Your task to perform on an android device: Open ESPN.com Image 0: 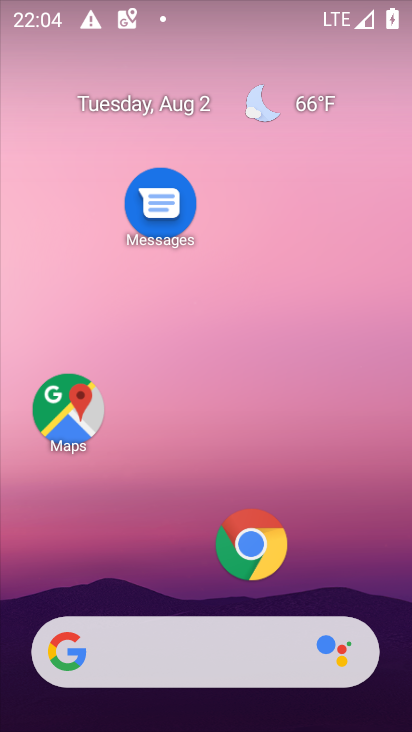
Step 0: click (273, 533)
Your task to perform on an android device: Open ESPN.com Image 1: 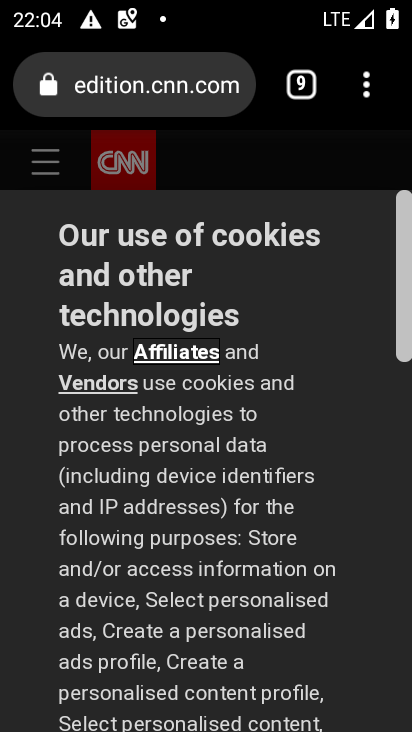
Step 1: click (293, 103)
Your task to perform on an android device: Open ESPN.com Image 2: 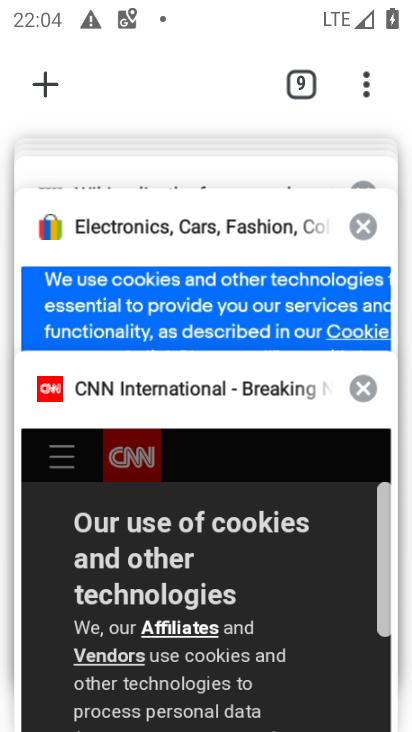
Step 2: click (51, 82)
Your task to perform on an android device: Open ESPN.com Image 3: 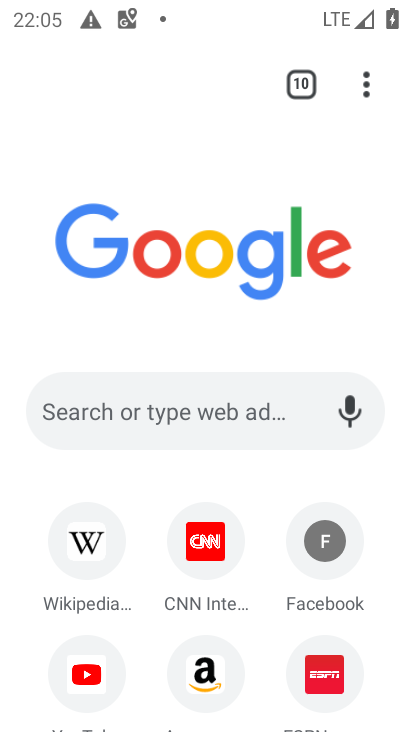
Step 3: click (325, 678)
Your task to perform on an android device: Open ESPN.com Image 4: 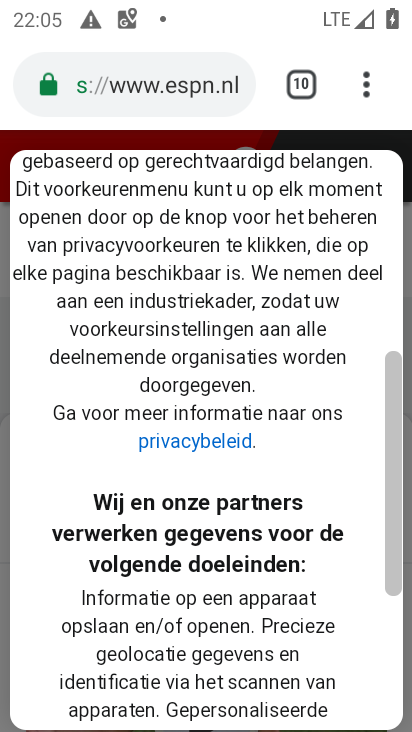
Step 4: task complete